Your task to perform on an android device: change the clock display to show seconds Image 0: 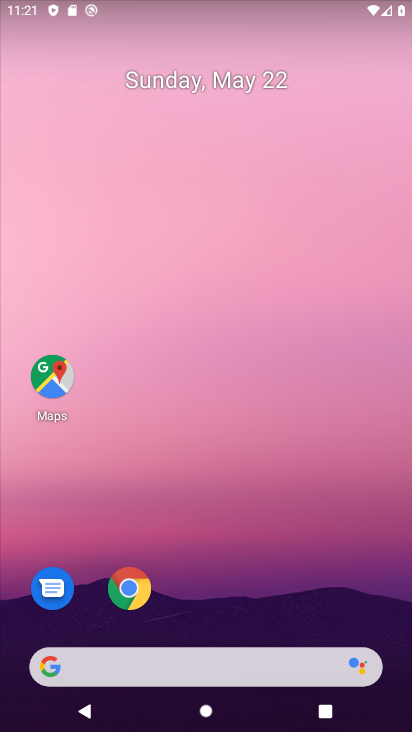
Step 0: drag from (271, 706) to (188, 127)
Your task to perform on an android device: change the clock display to show seconds Image 1: 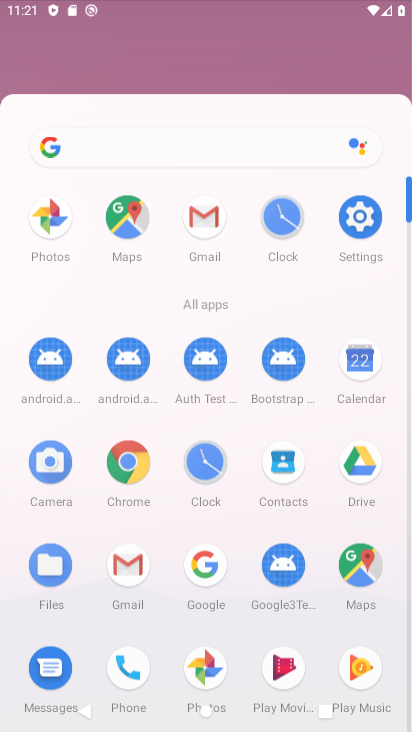
Step 1: drag from (287, 595) to (209, 57)
Your task to perform on an android device: change the clock display to show seconds Image 2: 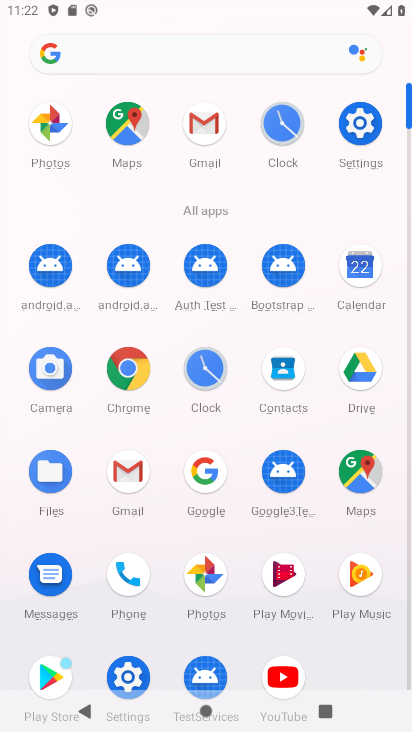
Step 2: click (205, 373)
Your task to perform on an android device: change the clock display to show seconds Image 3: 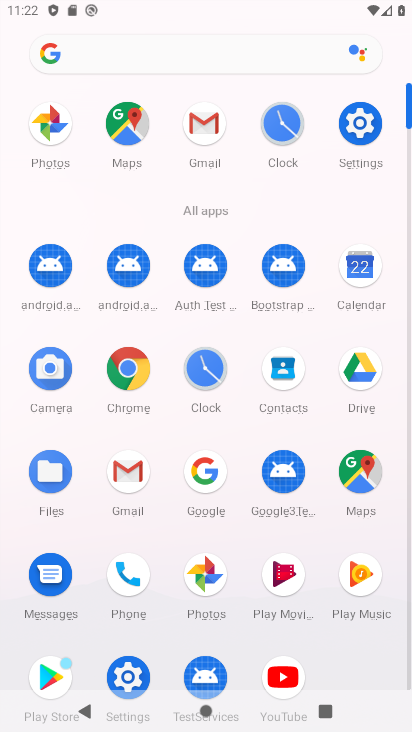
Step 3: click (205, 373)
Your task to perform on an android device: change the clock display to show seconds Image 4: 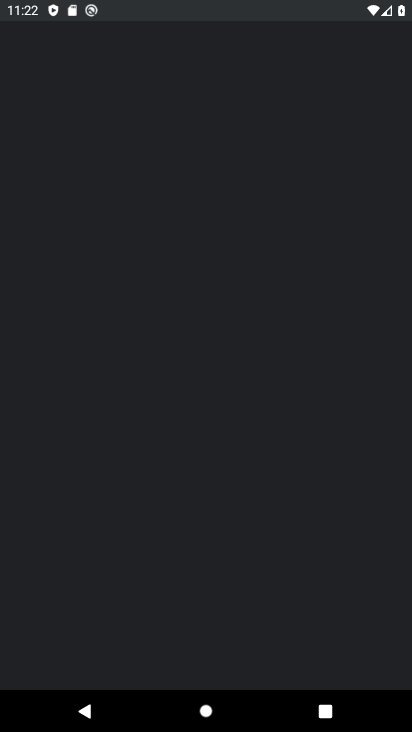
Step 4: click (195, 361)
Your task to perform on an android device: change the clock display to show seconds Image 5: 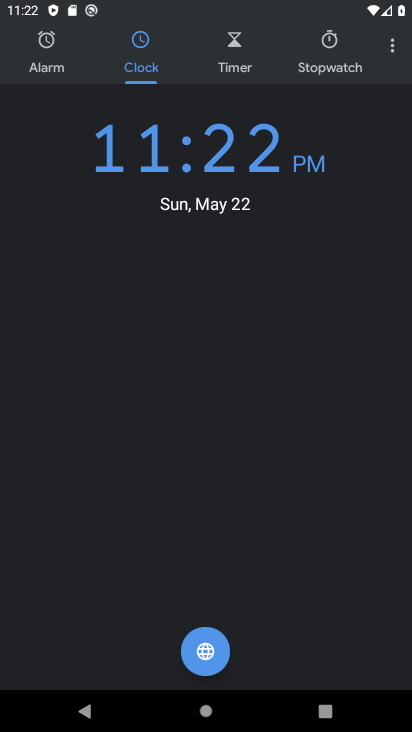
Step 5: click (395, 53)
Your task to perform on an android device: change the clock display to show seconds Image 6: 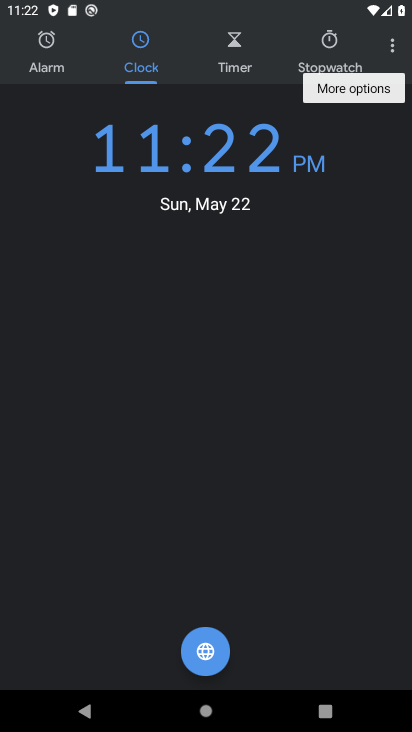
Step 6: click (395, 53)
Your task to perform on an android device: change the clock display to show seconds Image 7: 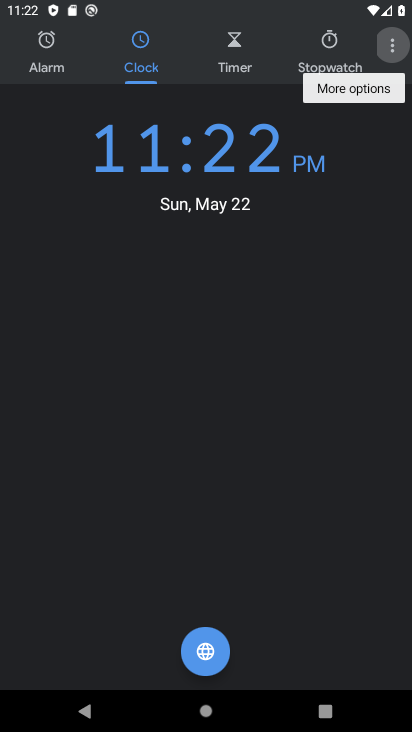
Step 7: click (395, 53)
Your task to perform on an android device: change the clock display to show seconds Image 8: 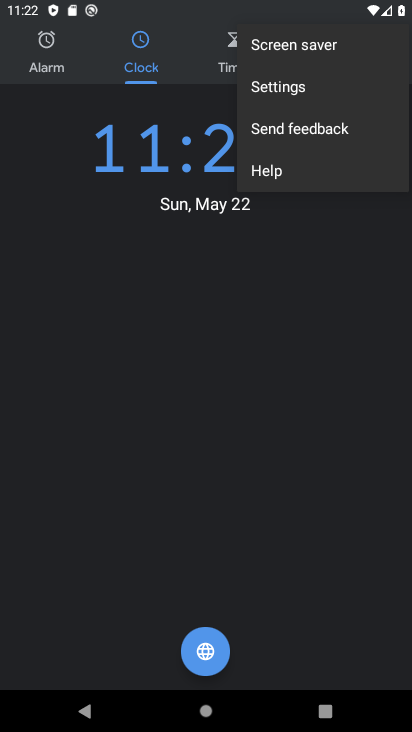
Step 8: click (395, 53)
Your task to perform on an android device: change the clock display to show seconds Image 9: 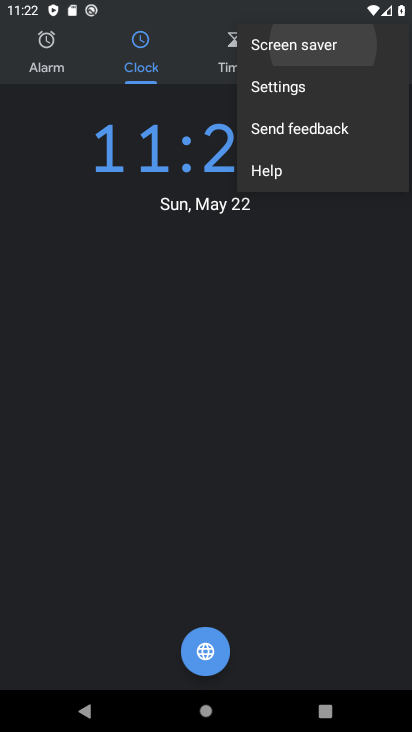
Step 9: click (395, 53)
Your task to perform on an android device: change the clock display to show seconds Image 10: 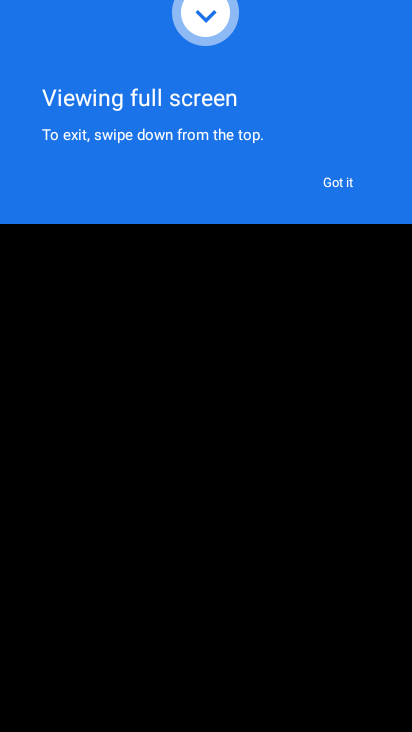
Step 10: click (340, 182)
Your task to perform on an android device: change the clock display to show seconds Image 11: 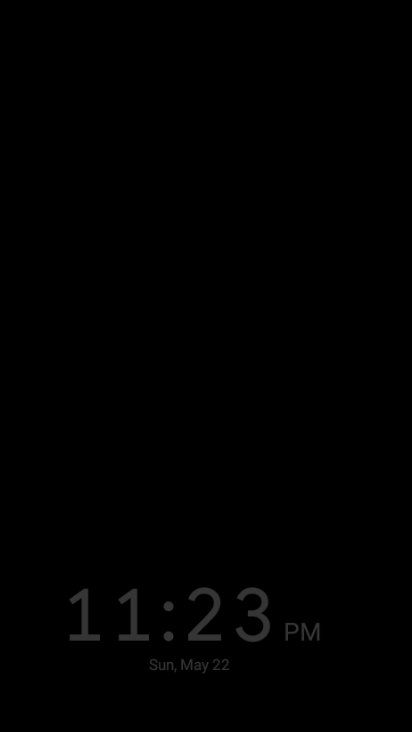
Step 11: click (341, 179)
Your task to perform on an android device: change the clock display to show seconds Image 12: 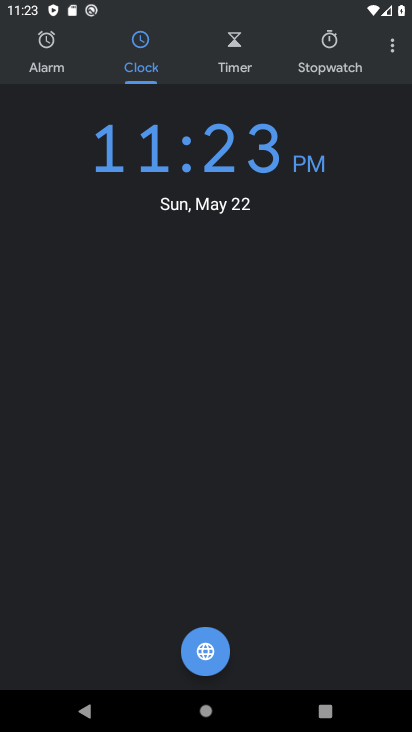
Step 12: click (390, 48)
Your task to perform on an android device: change the clock display to show seconds Image 13: 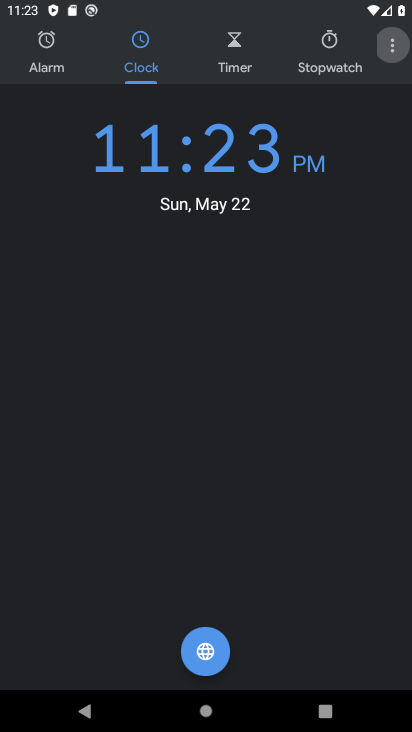
Step 13: click (393, 48)
Your task to perform on an android device: change the clock display to show seconds Image 14: 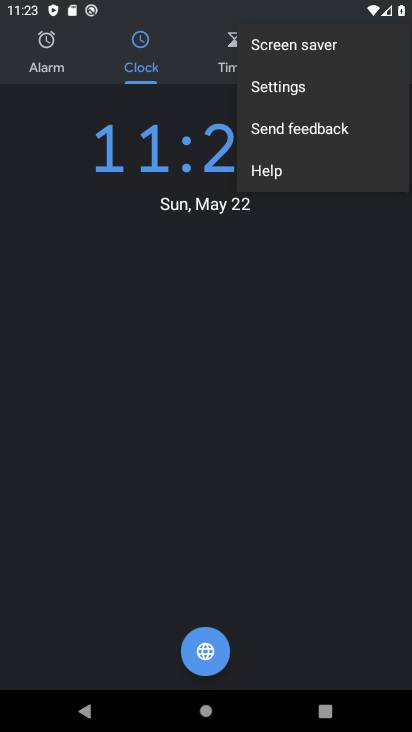
Step 14: click (294, 76)
Your task to perform on an android device: change the clock display to show seconds Image 15: 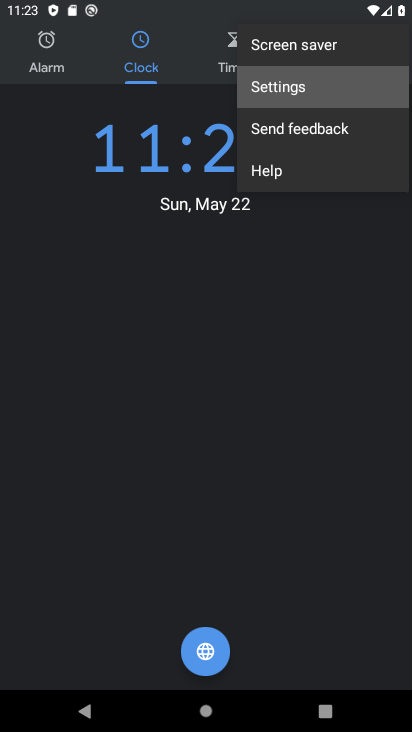
Step 15: click (292, 78)
Your task to perform on an android device: change the clock display to show seconds Image 16: 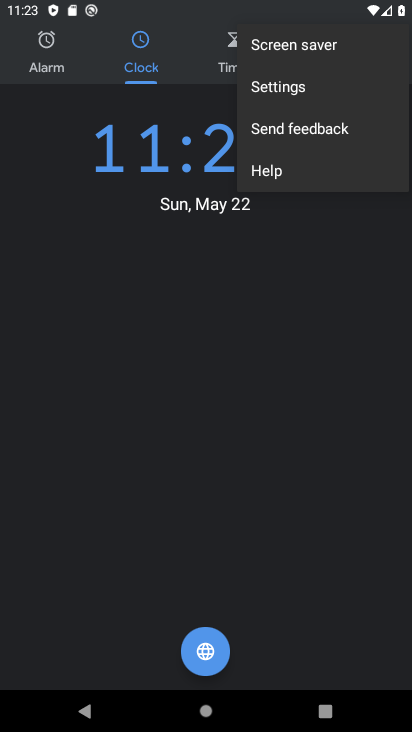
Step 16: click (292, 78)
Your task to perform on an android device: change the clock display to show seconds Image 17: 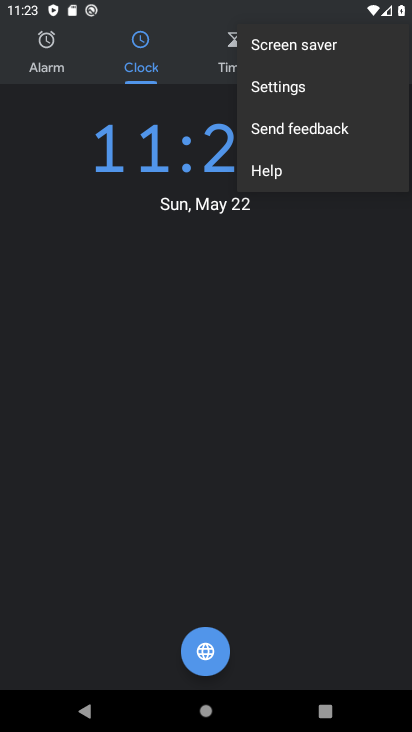
Step 17: click (292, 80)
Your task to perform on an android device: change the clock display to show seconds Image 18: 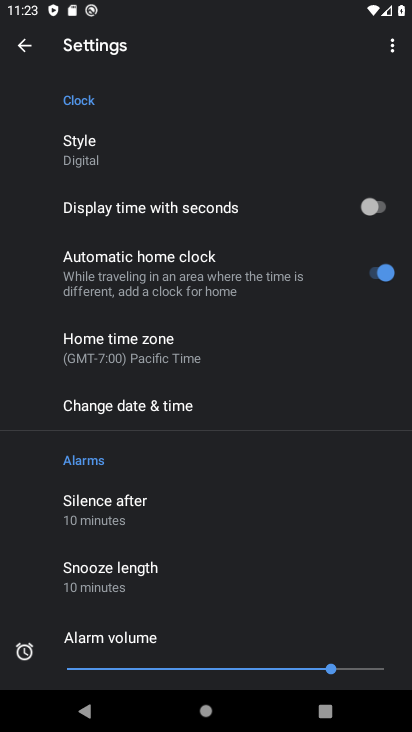
Step 18: drag from (206, 467) to (191, 130)
Your task to perform on an android device: change the clock display to show seconds Image 19: 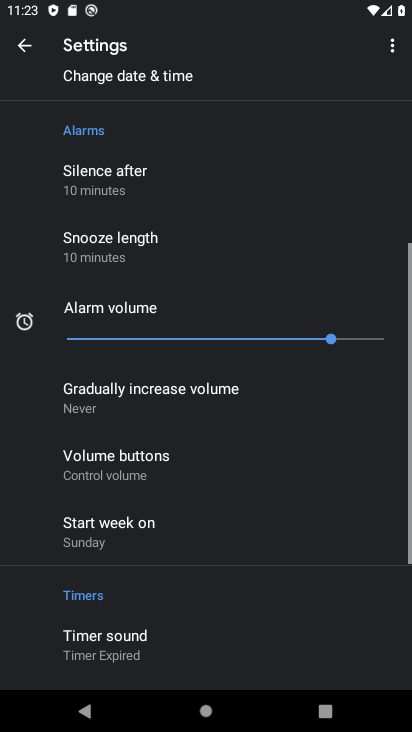
Step 19: drag from (239, 540) to (220, 166)
Your task to perform on an android device: change the clock display to show seconds Image 20: 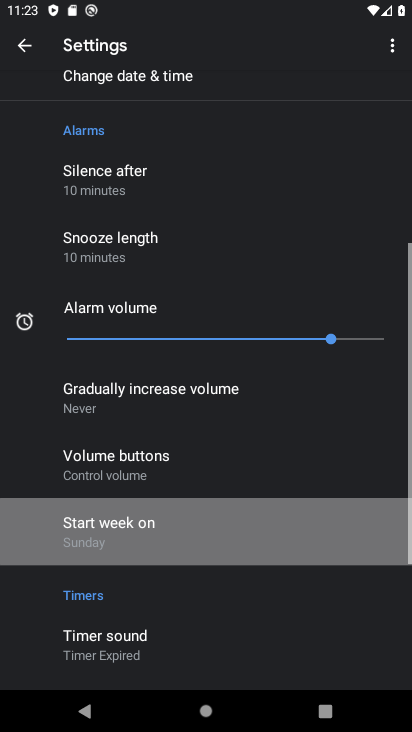
Step 20: drag from (190, 412) to (139, 42)
Your task to perform on an android device: change the clock display to show seconds Image 21: 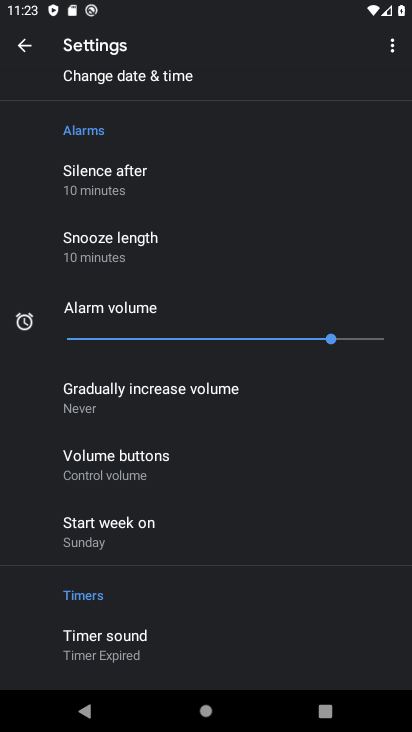
Step 21: drag from (180, 555) to (163, 134)
Your task to perform on an android device: change the clock display to show seconds Image 22: 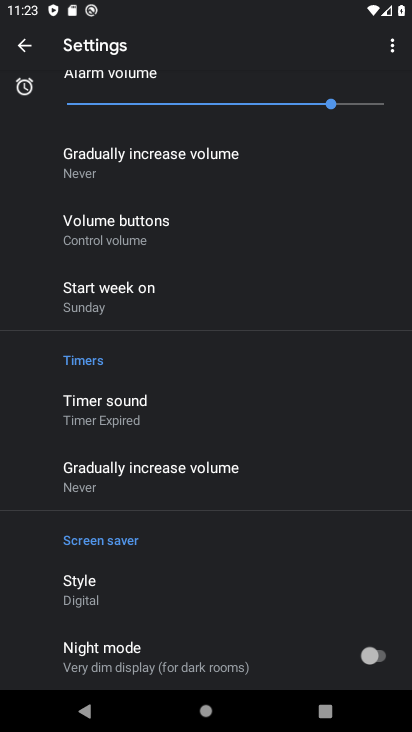
Step 22: drag from (150, 496) to (150, 60)
Your task to perform on an android device: change the clock display to show seconds Image 23: 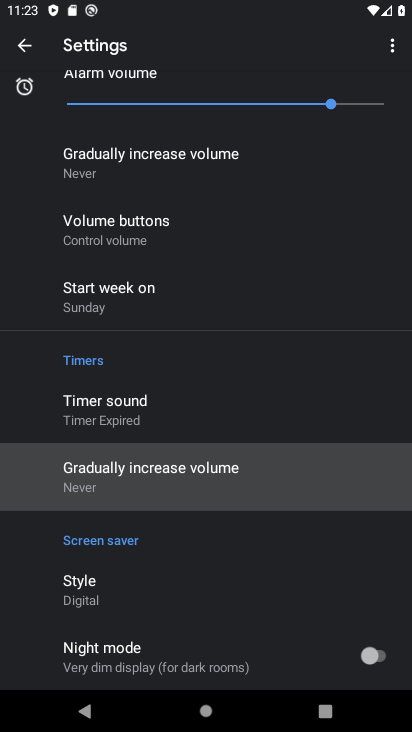
Step 23: drag from (175, 495) to (218, 130)
Your task to perform on an android device: change the clock display to show seconds Image 24: 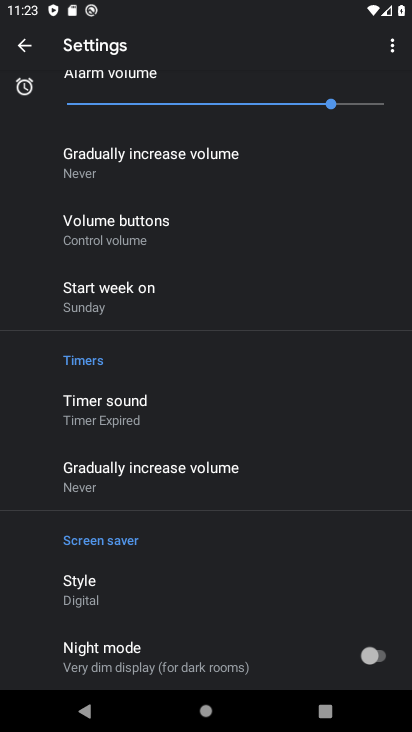
Step 24: drag from (236, 462) to (275, 55)
Your task to perform on an android device: change the clock display to show seconds Image 25: 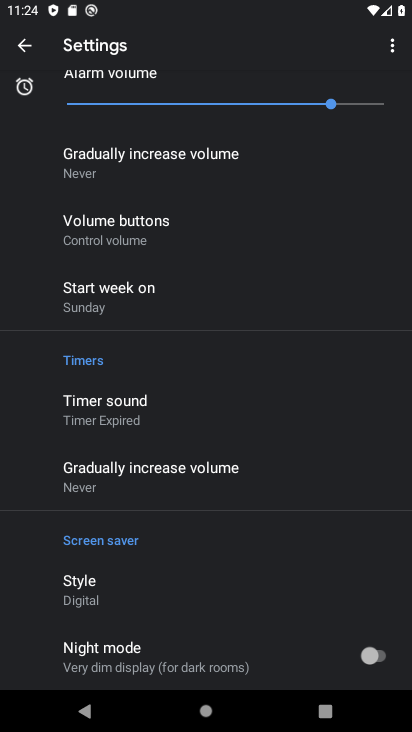
Step 25: drag from (143, 481) to (135, 13)
Your task to perform on an android device: change the clock display to show seconds Image 26: 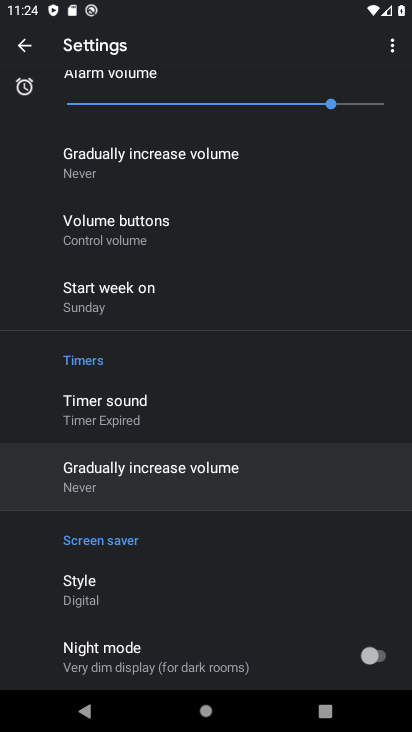
Step 26: drag from (159, 486) to (162, 245)
Your task to perform on an android device: change the clock display to show seconds Image 27: 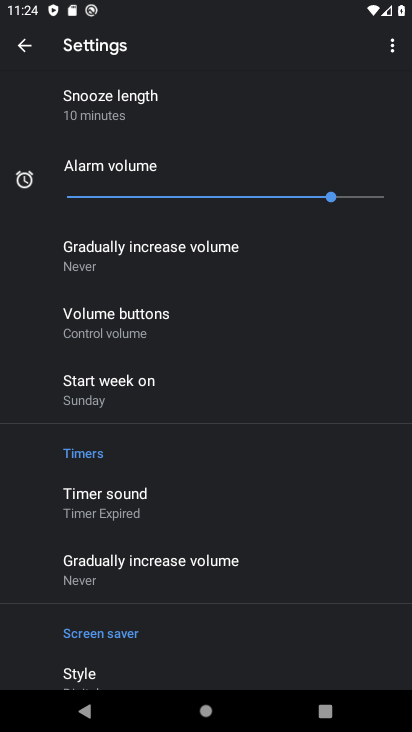
Step 27: drag from (151, 194) to (155, 552)
Your task to perform on an android device: change the clock display to show seconds Image 28: 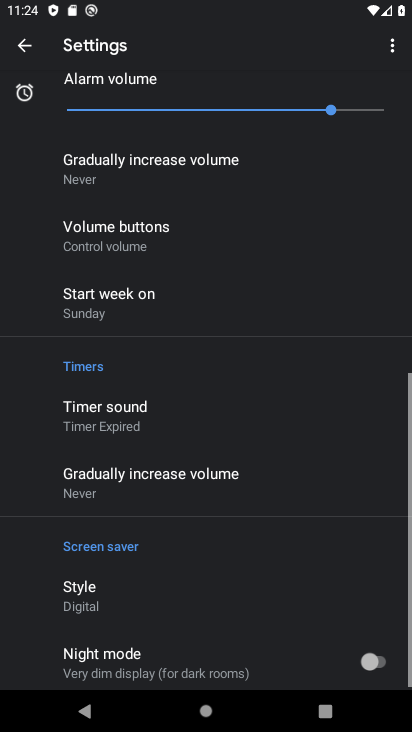
Step 28: drag from (143, 305) to (180, 584)
Your task to perform on an android device: change the clock display to show seconds Image 29: 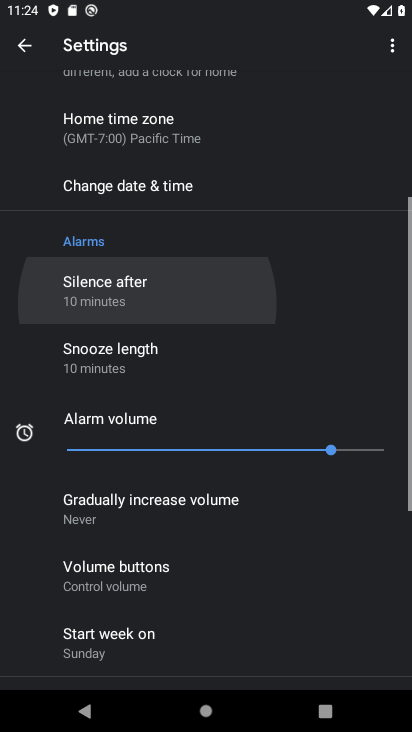
Step 29: drag from (200, 229) to (232, 549)
Your task to perform on an android device: change the clock display to show seconds Image 30: 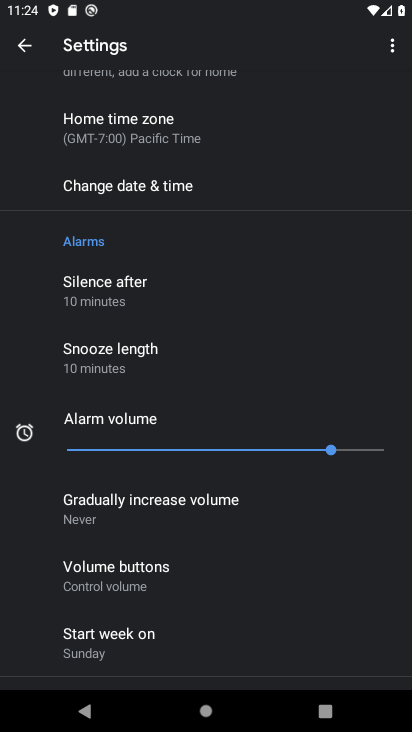
Step 30: drag from (223, 260) to (236, 644)
Your task to perform on an android device: change the clock display to show seconds Image 31: 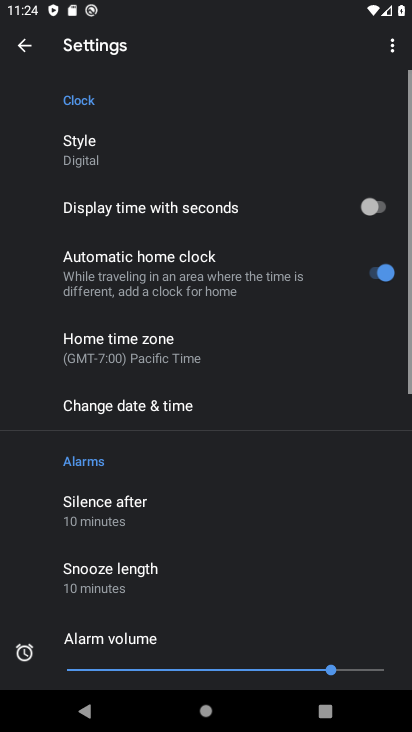
Step 31: drag from (217, 266) to (234, 653)
Your task to perform on an android device: change the clock display to show seconds Image 32: 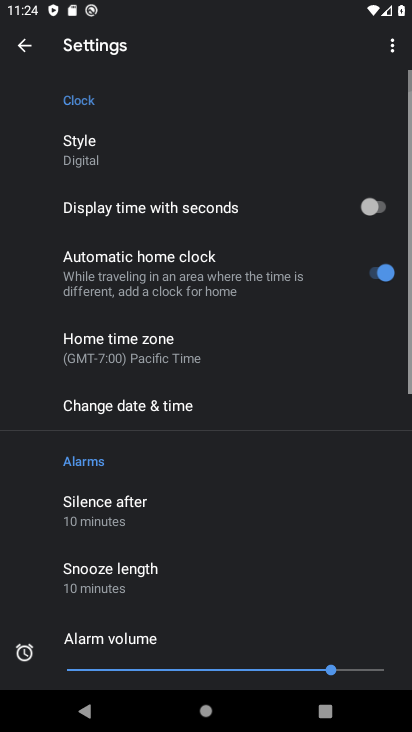
Step 32: drag from (205, 254) to (257, 646)
Your task to perform on an android device: change the clock display to show seconds Image 33: 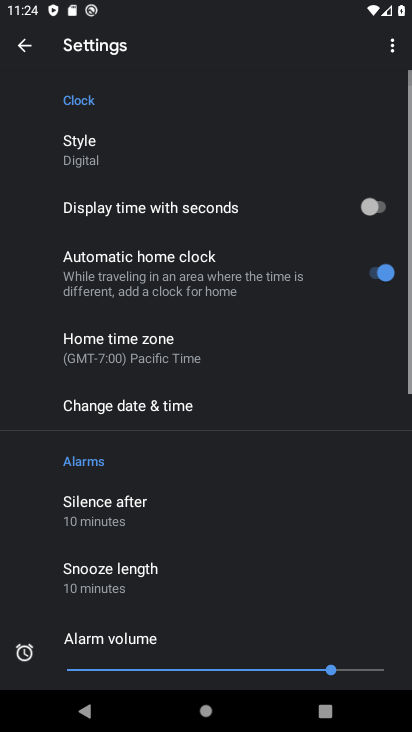
Step 33: drag from (267, 266) to (250, 581)
Your task to perform on an android device: change the clock display to show seconds Image 34: 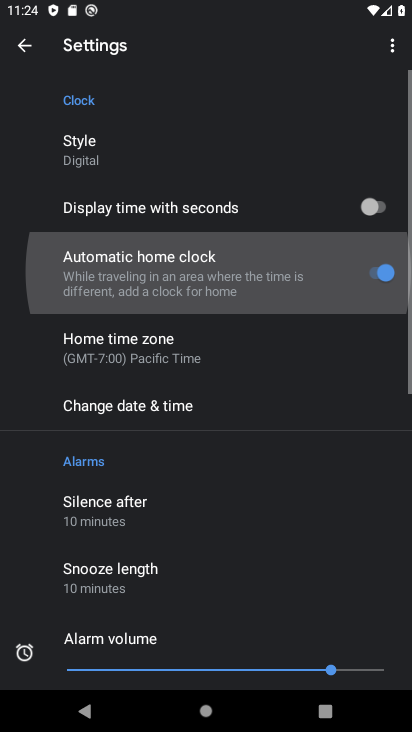
Step 34: drag from (188, 250) to (236, 559)
Your task to perform on an android device: change the clock display to show seconds Image 35: 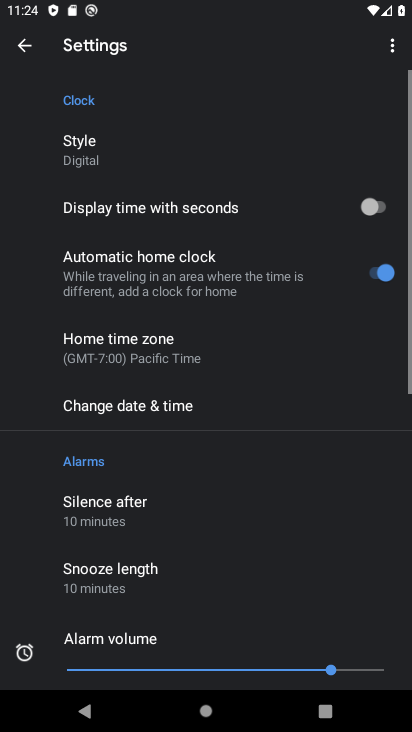
Step 35: drag from (109, 115) to (183, 608)
Your task to perform on an android device: change the clock display to show seconds Image 36: 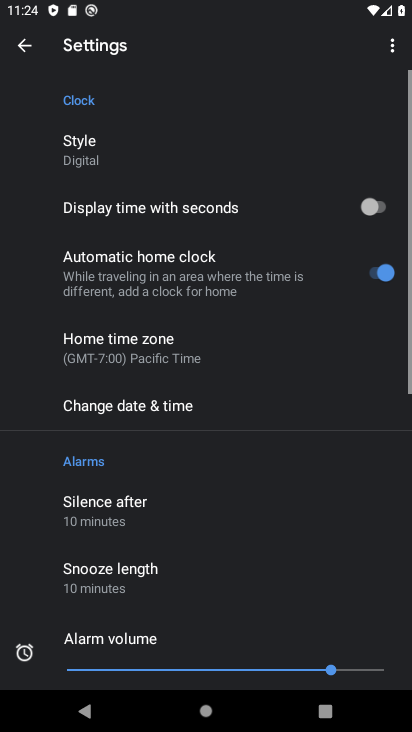
Step 36: drag from (213, 291) to (258, 666)
Your task to perform on an android device: change the clock display to show seconds Image 37: 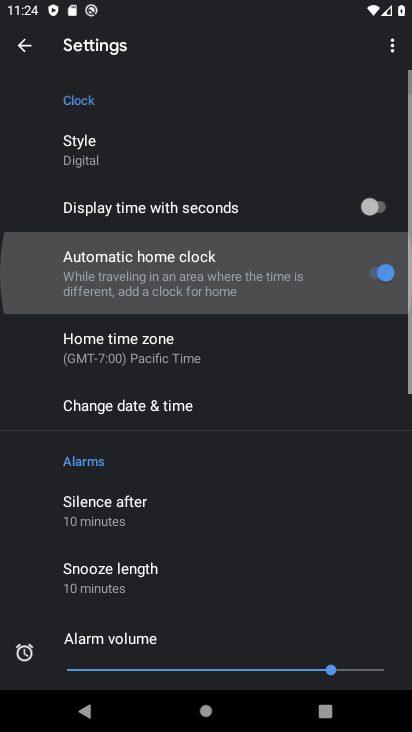
Step 37: drag from (209, 273) to (215, 685)
Your task to perform on an android device: change the clock display to show seconds Image 38: 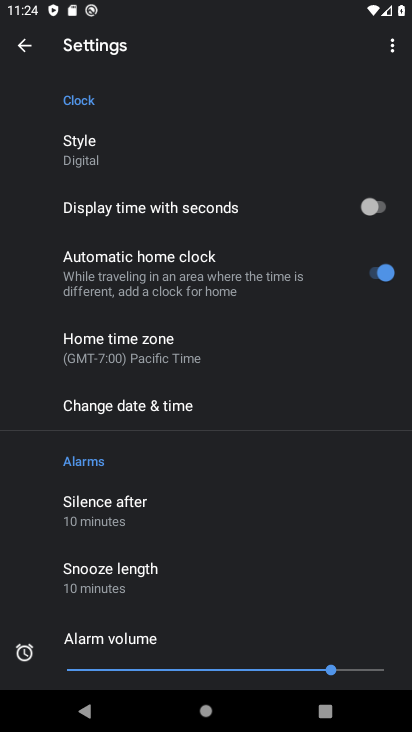
Step 38: drag from (174, 199) to (195, 442)
Your task to perform on an android device: change the clock display to show seconds Image 39: 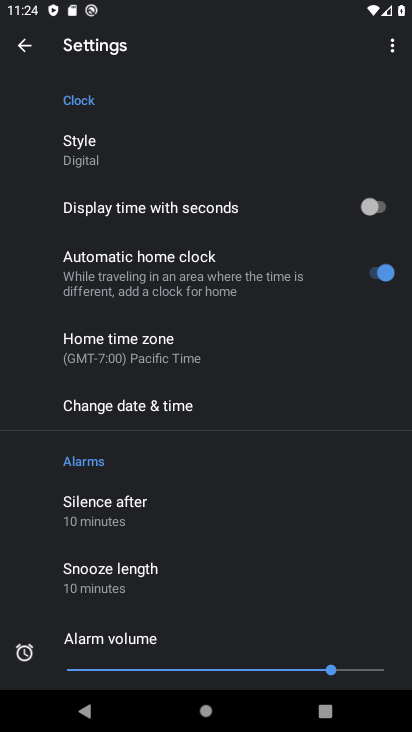
Step 39: drag from (253, 189) to (276, 454)
Your task to perform on an android device: change the clock display to show seconds Image 40: 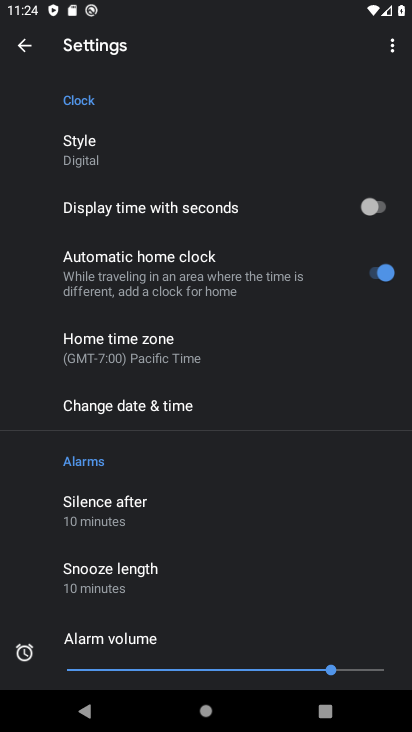
Step 40: drag from (259, 188) to (298, 490)
Your task to perform on an android device: change the clock display to show seconds Image 41: 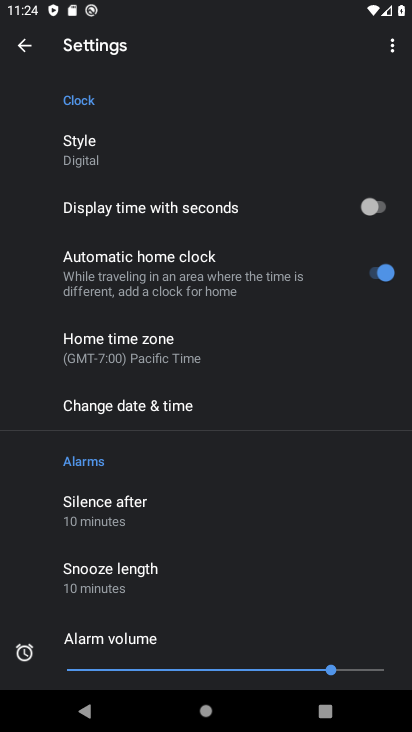
Step 41: click (367, 206)
Your task to perform on an android device: change the clock display to show seconds Image 42: 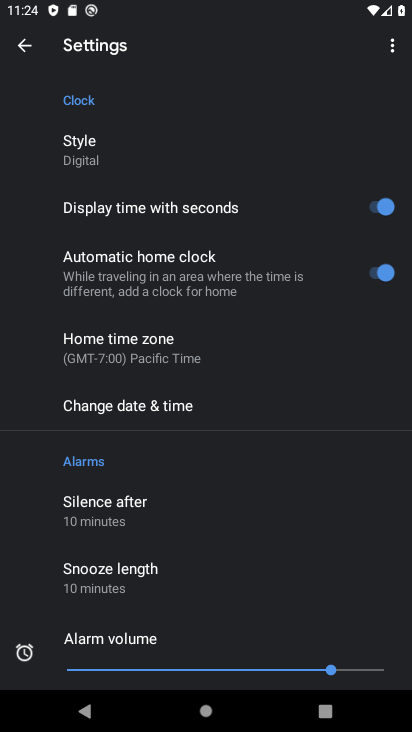
Step 42: task complete